Your task to perform on an android device: Open settings Image 0: 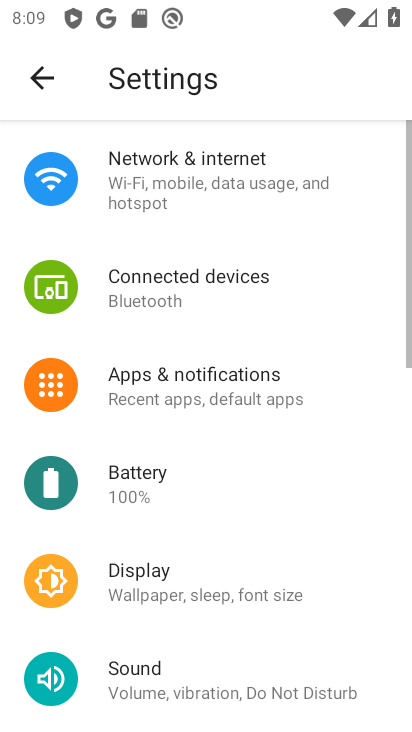
Step 0: press home button
Your task to perform on an android device: Open settings Image 1: 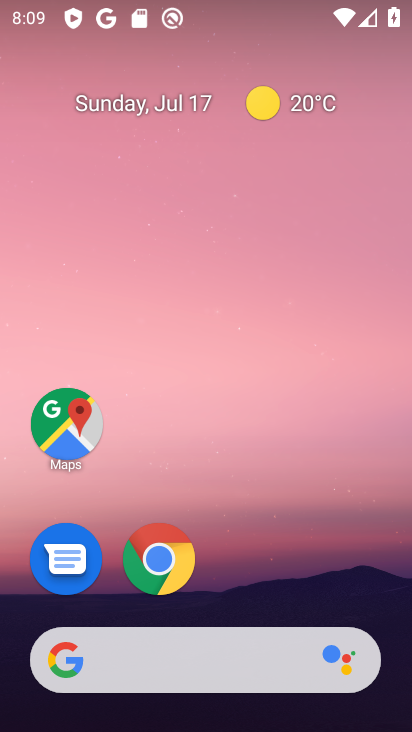
Step 1: drag from (301, 593) to (311, 226)
Your task to perform on an android device: Open settings Image 2: 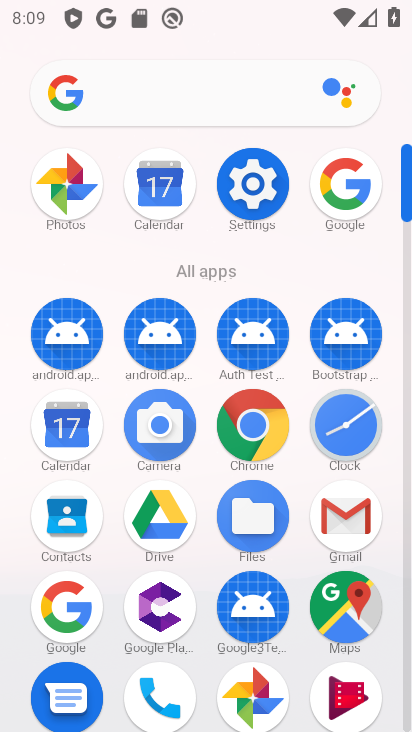
Step 2: click (268, 196)
Your task to perform on an android device: Open settings Image 3: 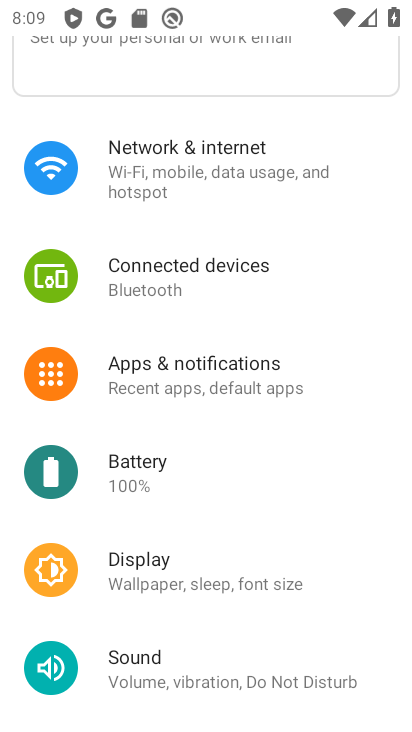
Step 3: task complete